Your task to perform on an android device: Open calendar and show me the fourth week of next month Image 0: 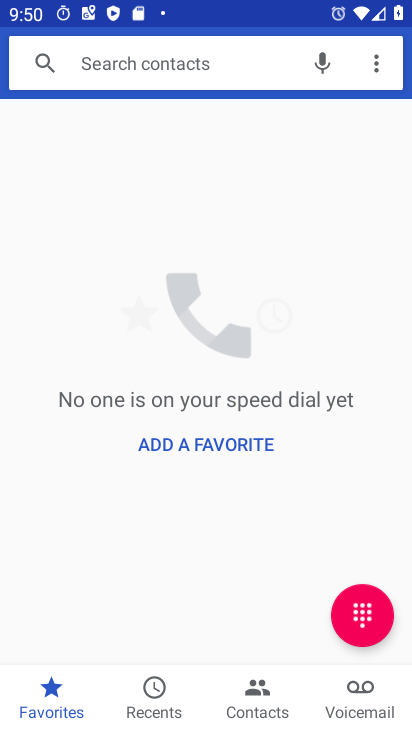
Step 0: press home button
Your task to perform on an android device: Open calendar and show me the fourth week of next month Image 1: 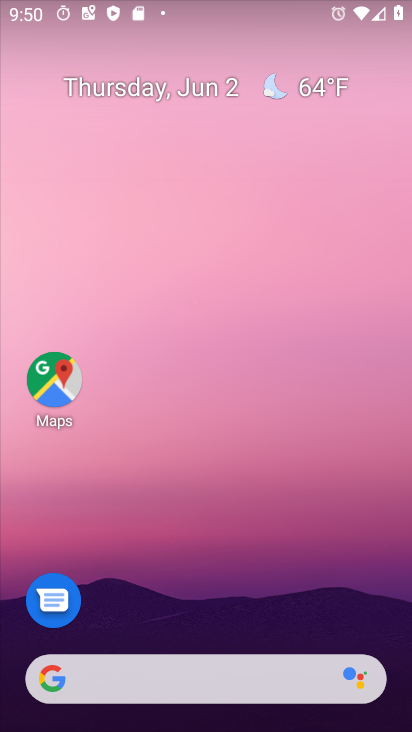
Step 1: drag from (185, 607) to (210, 84)
Your task to perform on an android device: Open calendar and show me the fourth week of next month Image 2: 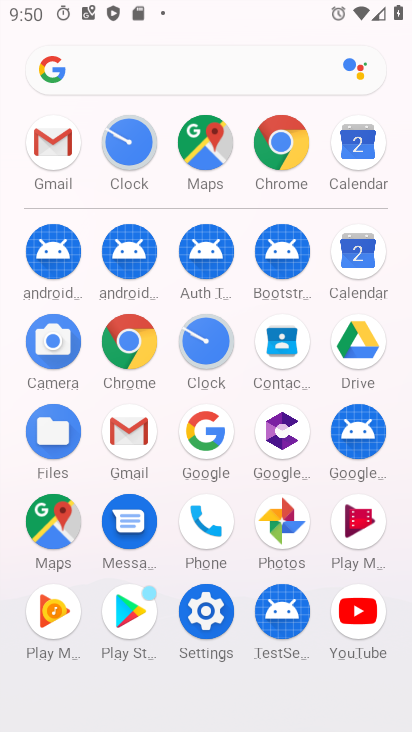
Step 2: click (358, 147)
Your task to perform on an android device: Open calendar and show me the fourth week of next month Image 3: 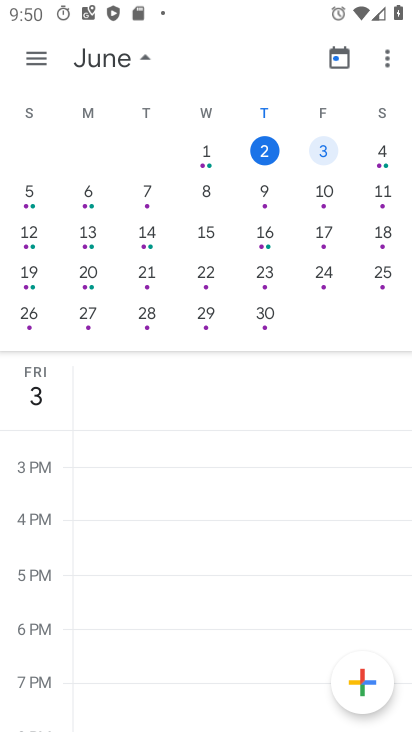
Step 3: drag from (361, 315) to (0, 266)
Your task to perform on an android device: Open calendar and show me the fourth week of next month Image 4: 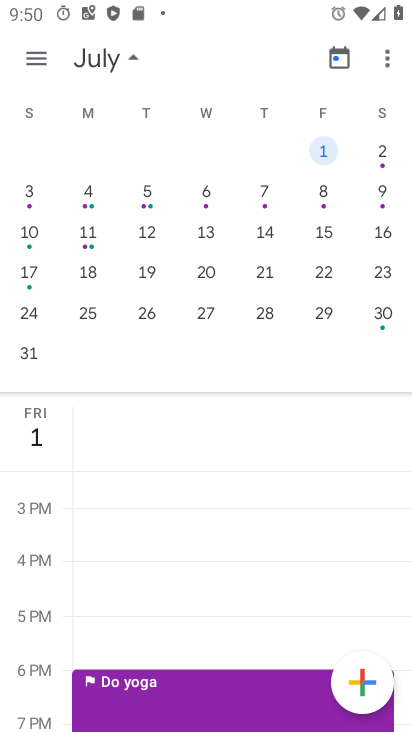
Step 4: click (268, 269)
Your task to perform on an android device: Open calendar and show me the fourth week of next month Image 5: 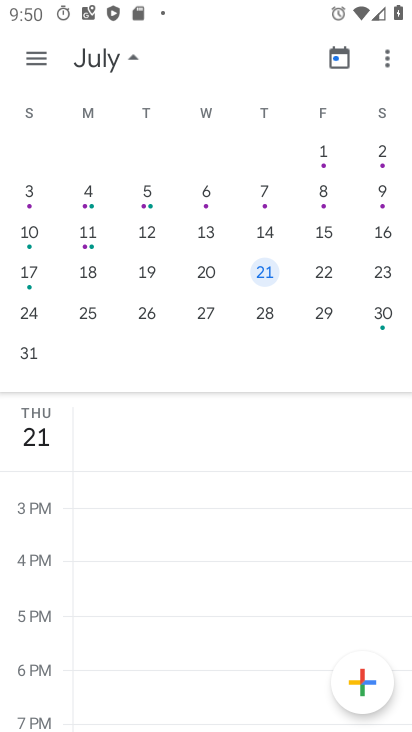
Step 5: task complete